Your task to perform on an android device: change alarm snooze length Image 0: 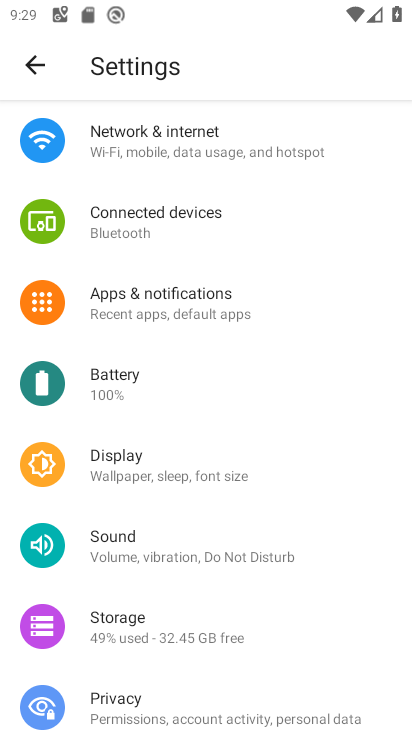
Step 0: press home button
Your task to perform on an android device: change alarm snooze length Image 1: 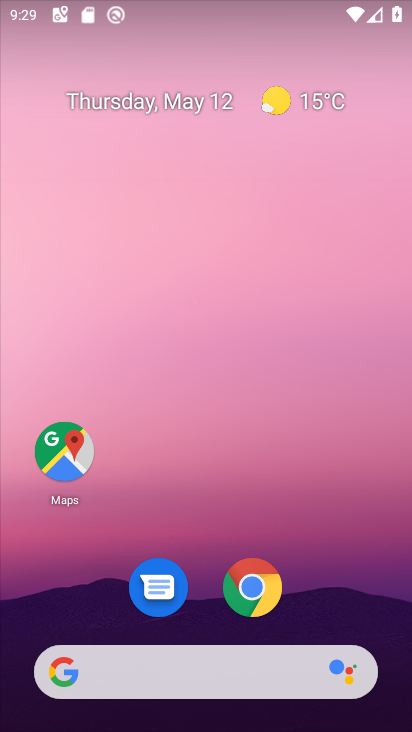
Step 1: drag from (402, 623) to (245, 5)
Your task to perform on an android device: change alarm snooze length Image 2: 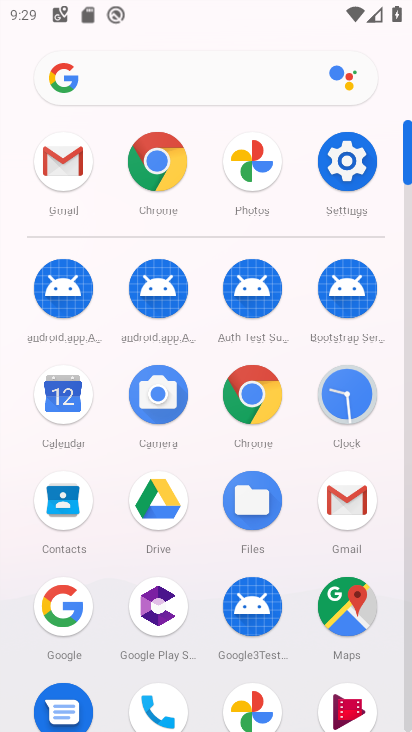
Step 2: click (363, 401)
Your task to perform on an android device: change alarm snooze length Image 3: 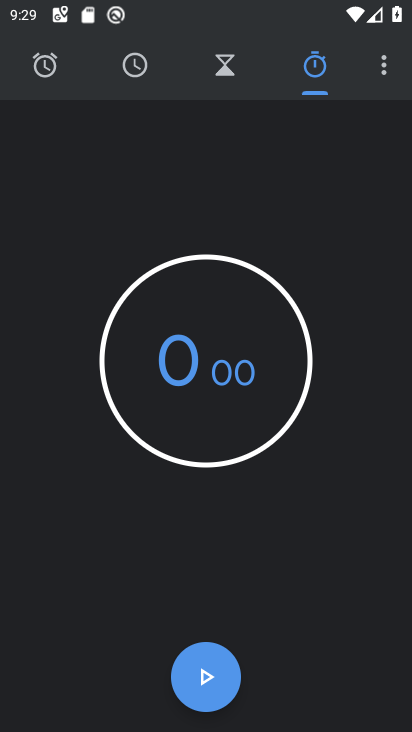
Step 3: click (378, 75)
Your task to perform on an android device: change alarm snooze length Image 4: 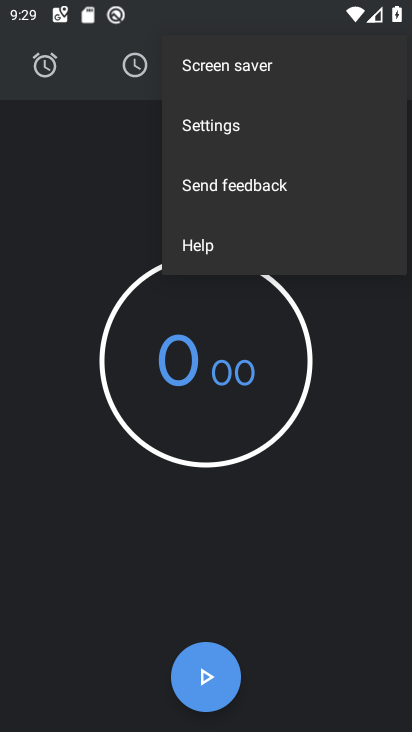
Step 4: click (217, 119)
Your task to perform on an android device: change alarm snooze length Image 5: 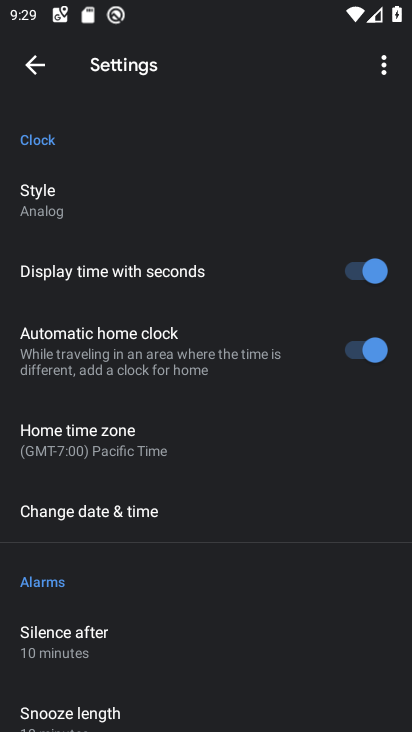
Step 5: click (133, 710)
Your task to perform on an android device: change alarm snooze length Image 6: 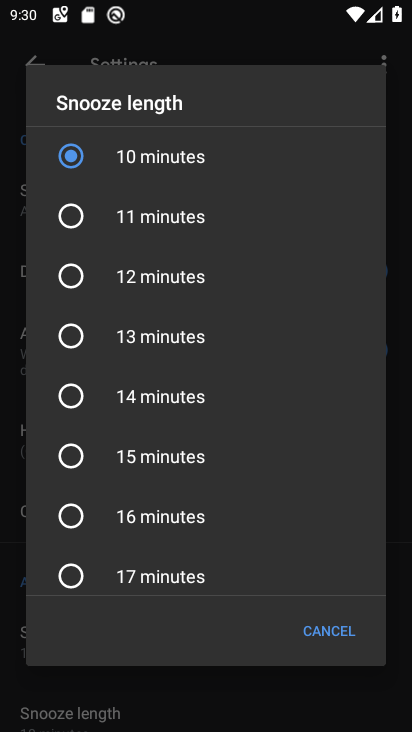
Step 6: click (177, 341)
Your task to perform on an android device: change alarm snooze length Image 7: 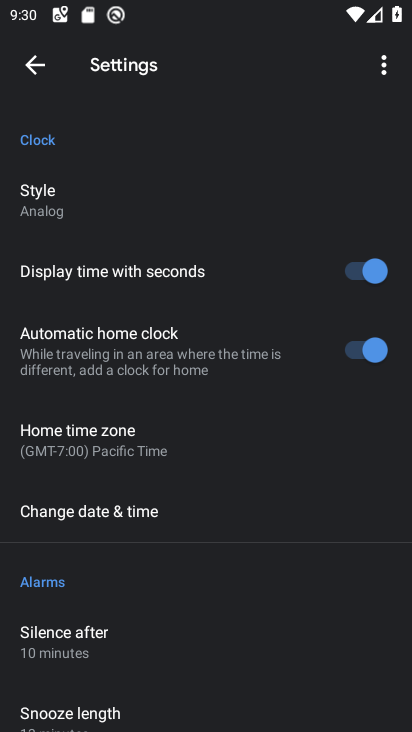
Step 7: task complete